Your task to perform on an android device: turn off improve location accuracy Image 0: 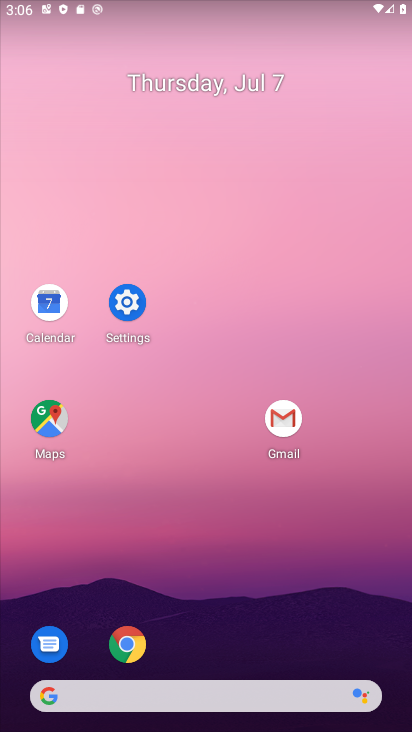
Step 0: click (129, 308)
Your task to perform on an android device: turn off improve location accuracy Image 1: 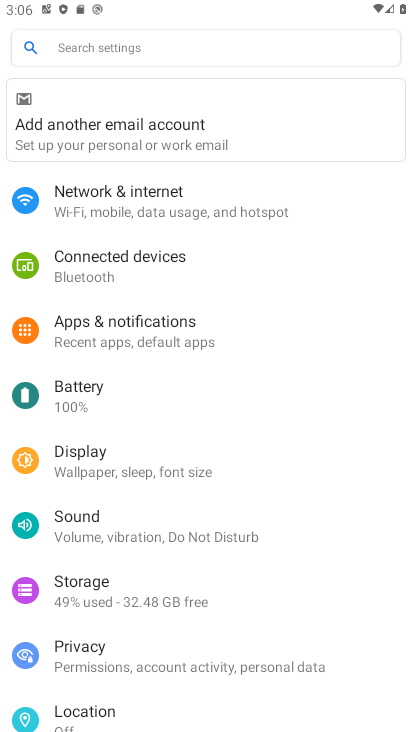
Step 1: click (103, 704)
Your task to perform on an android device: turn off improve location accuracy Image 2: 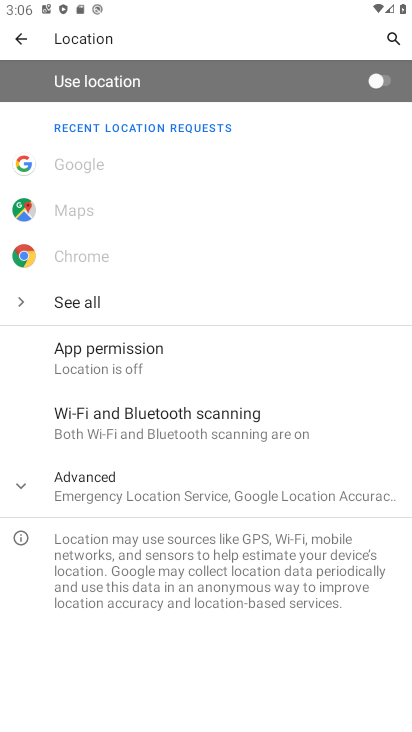
Step 2: click (27, 480)
Your task to perform on an android device: turn off improve location accuracy Image 3: 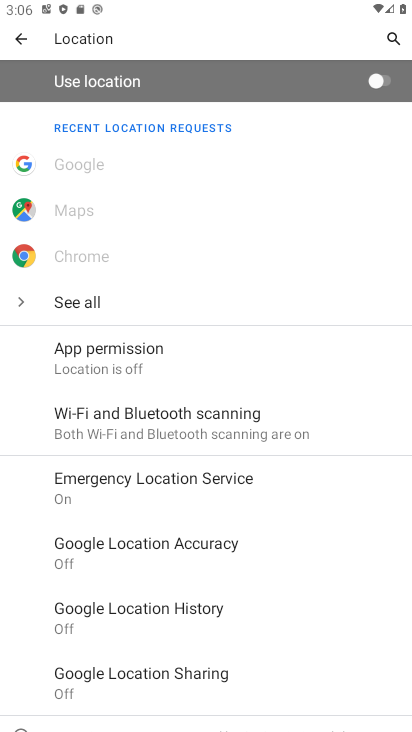
Step 3: click (168, 540)
Your task to perform on an android device: turn off improve location accuracy Image 4: 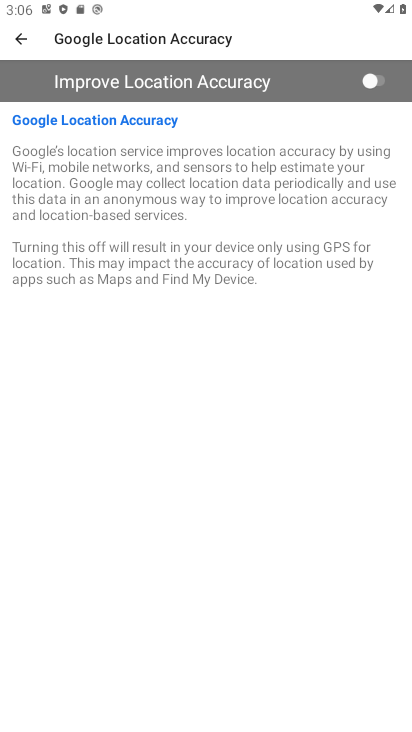
Step 4: task complete